Your task to perform on an android device: Open notification settings Image 0: 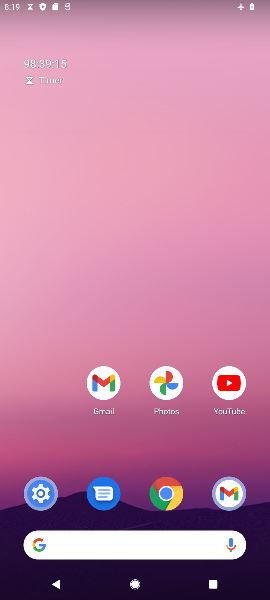
Step 0: drag from (120, 523) to (128, 189)
Your task to perform on an android device: Open notification settings Image 1: 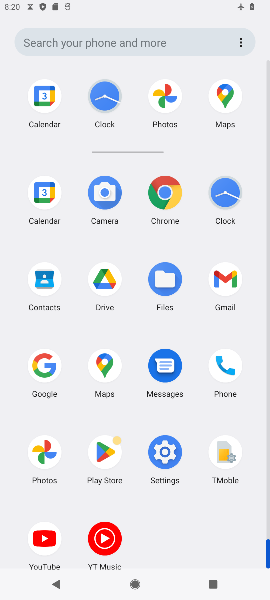
Step 1: click (169, 450)
Your task to perform on an android device: Open notification settings Image 2: 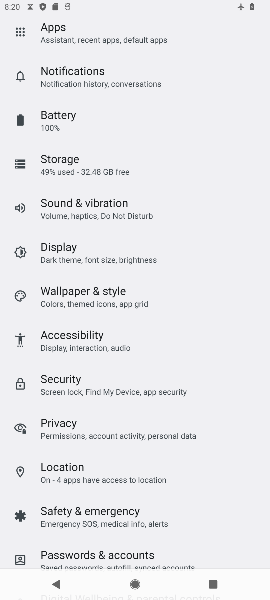
Step 2: click (81, 61)
Your task to perform on an android device: Open notification settings Image 3: 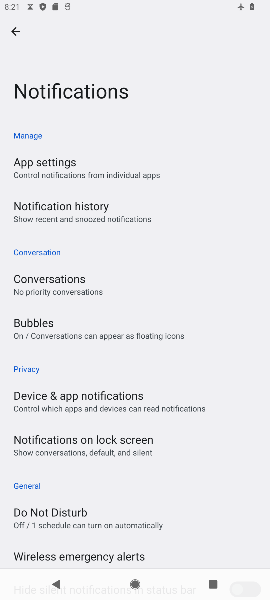
Step 3: task complete